Your task to perform on an android device: find photos in the google photos app Image 0: 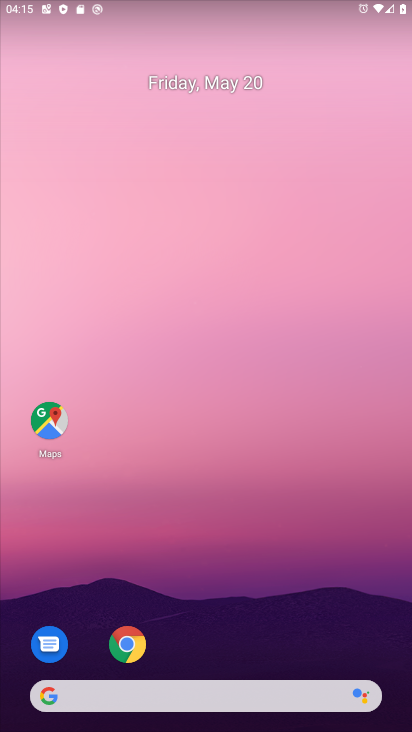
Step 0: drag from (307, 618) to (238, 106)
Your task to perform on an android device: find photos in the google photos app Image 1: 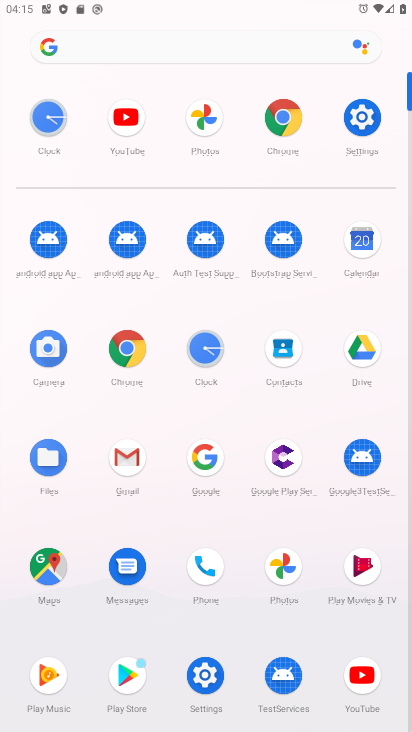
Step 1: click (270, 570)
Your task to perform on an android device: find photos in the google photos app Image 2: 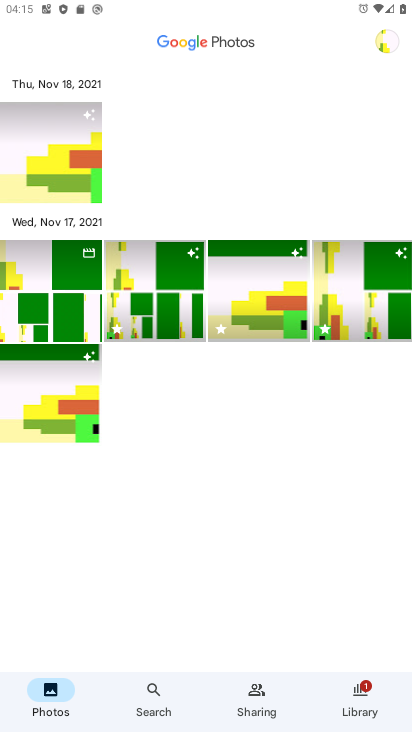
Step 2: task complete